Your task to perform on an android device: open a bookmark in the chrome app Image 0: 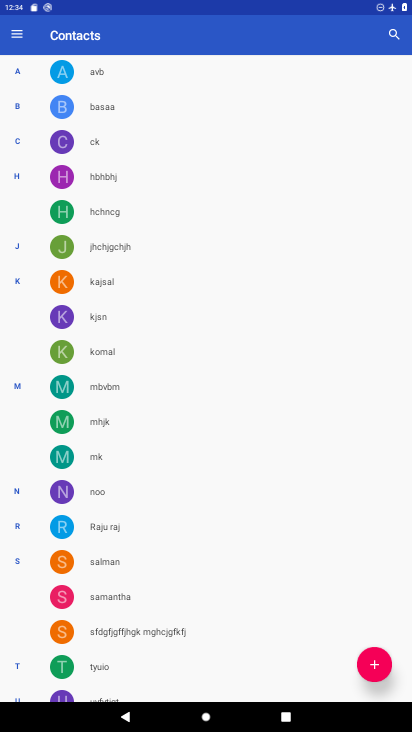
Step 0: click (180, 404)
Your task to perform on an android device: open a bookmark in the chrome app Image 1: 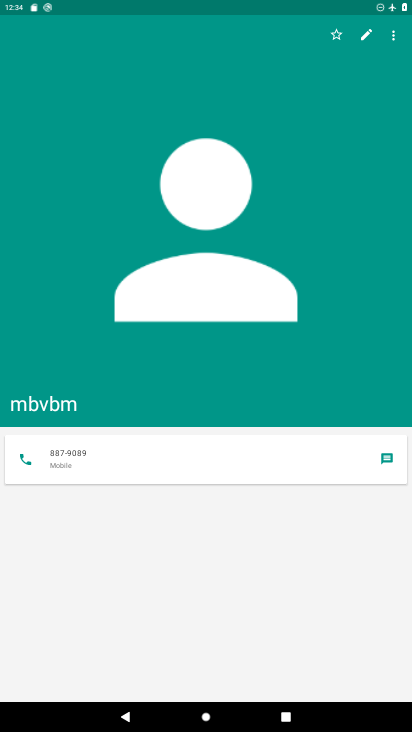
Step 1: press home button
Your task to perform on an android device: open a bookmark in the chrome app Image 2: 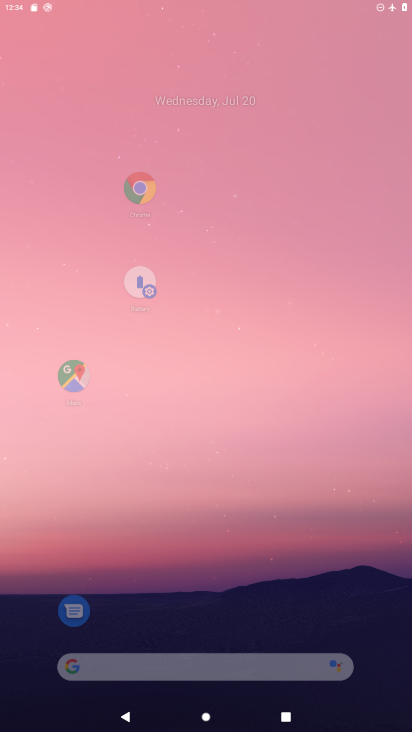
Step 2: drag from (176, 542) to (218, 214)
Your task to perform on an android device: open a bookmark in the chrome app Image 3: 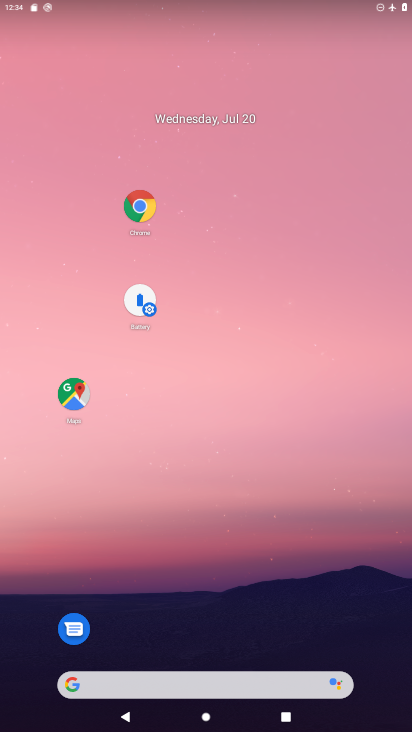
Step 3: drag from (180, 413) to (180, 219)
Your task to perform on an android device: open a bookmark in the chrome app Image 4: 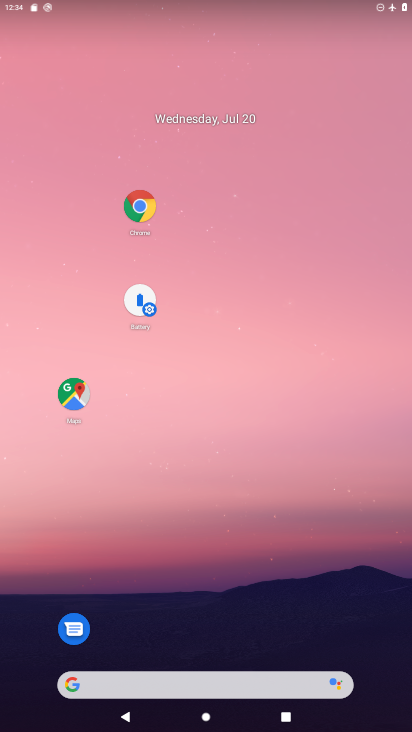
Step 4: drag from (173, 607) to (179, 205)
Your task to perform on an android device: open a bookmark in the chrome app Image 5: 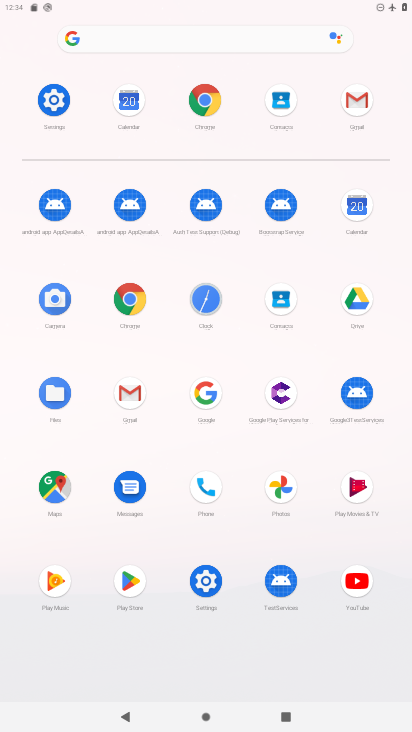
Step 5: click (193, 97)
Your task to perform on an android device: open a bookmark in the chrome app Image 6: 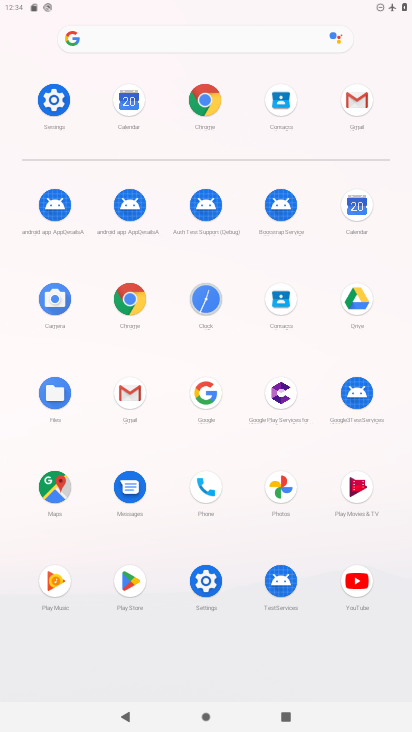
Step 6: click (193, 97)
Your task to perform on an android device: open a bookmark in the chrome app Image 7: 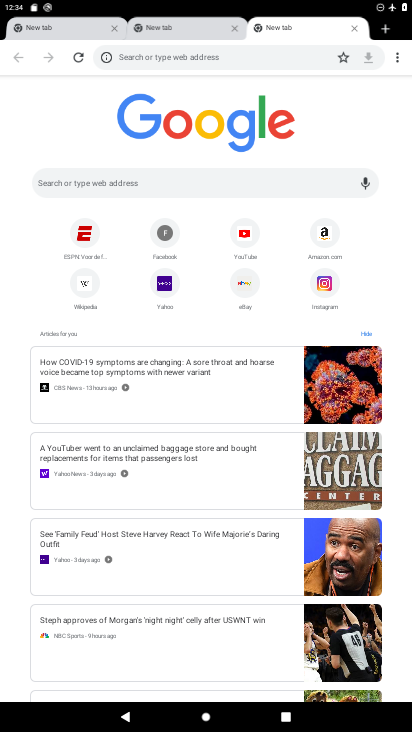
Step 7: click (354, 30)
Your task to perform on an android device: open a bookmark in the chrome app Image 8: 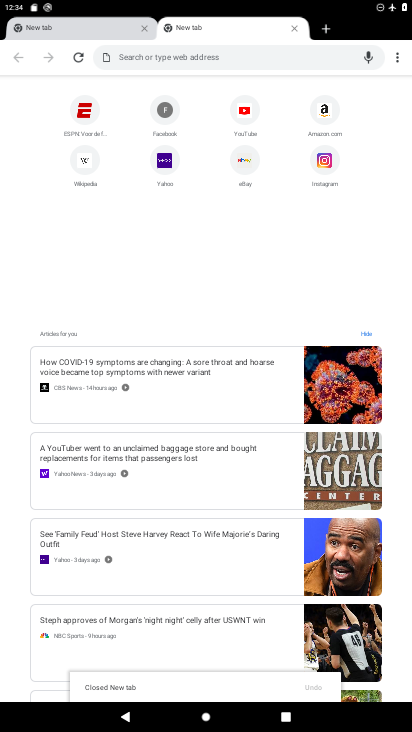
Step 8: click (295, 27)
Your task to perform on an android device: open a bookmark in the chrome app Image 9: 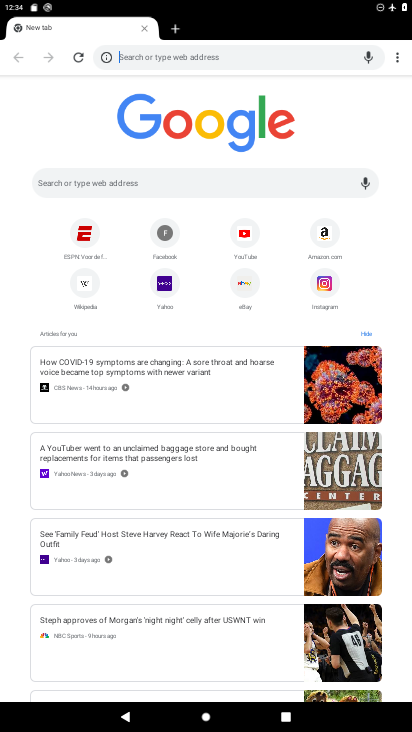
Step 9: task complete